Your task to perform on an android device: Open Android settings Image 0: 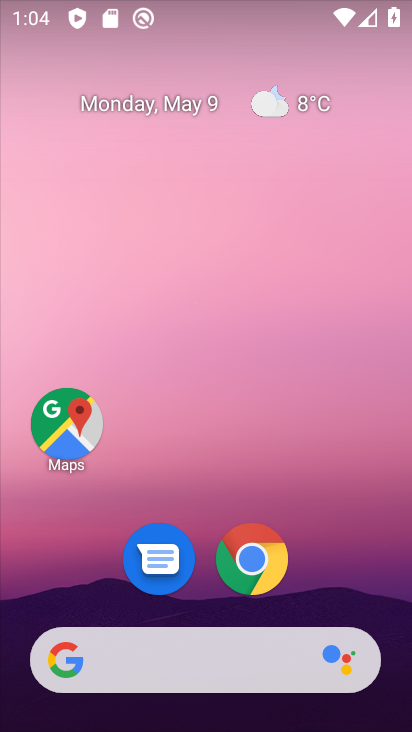
Step 0: drag from (327, 542) to (400, 163)
Your task to perform on an android device: Open Android settings Image 1: 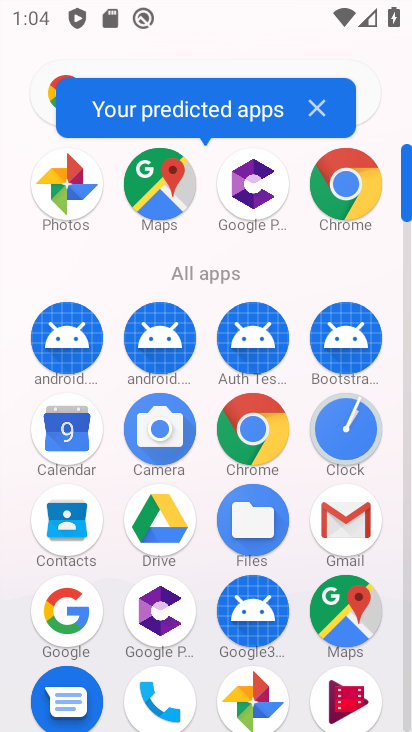
Step 1: drag from (206, 652) to (97, 225)
Your task to perform on an android device: Open Android settings Image 2: 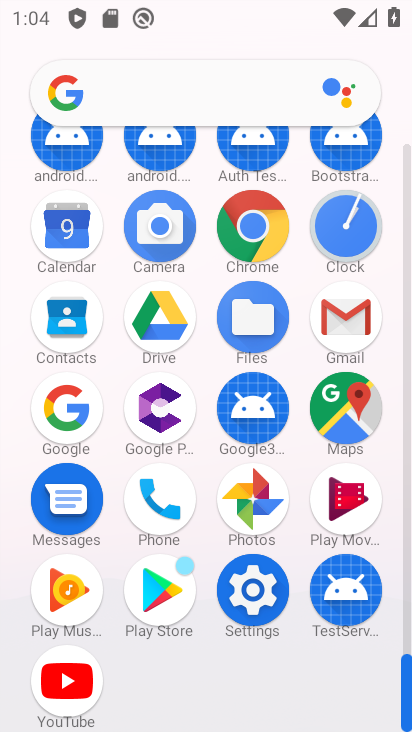
Step 2: click (260, 591)
Your task to perform on an android device: Open Android settings Image 3: 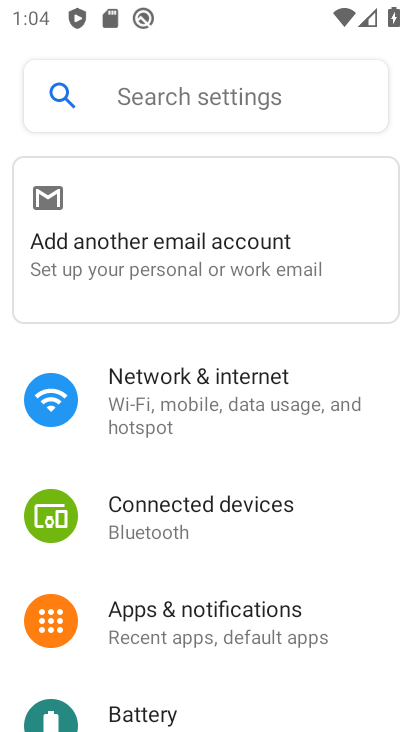
Step 3: task complete